Your task to perform on an android device: Search for Mexican restaurants on Maps Image 0: 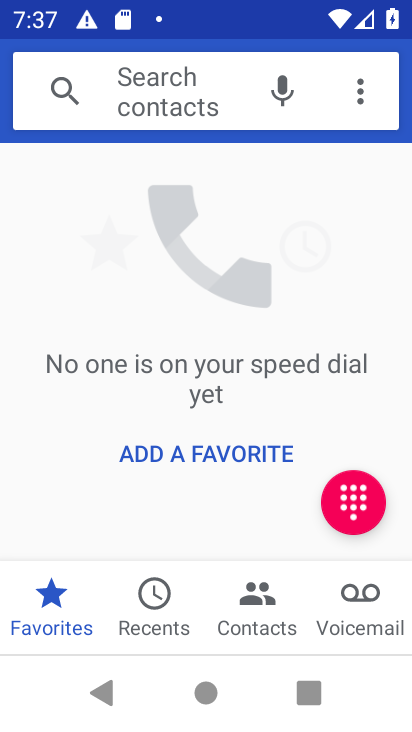
Step 0: task complete